Your task to perform on an android device: turn off improve location accuracy Image 0: 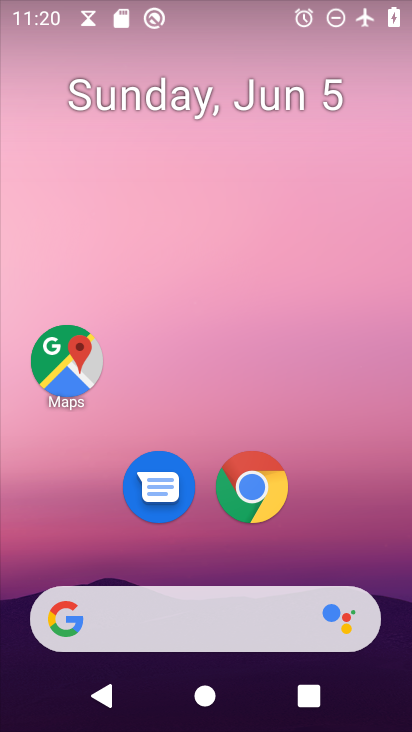
Step 0: drag from (232, 524) to (230, 321)
Your task to perform on an android device: turn off improve location accuracy Image 1: 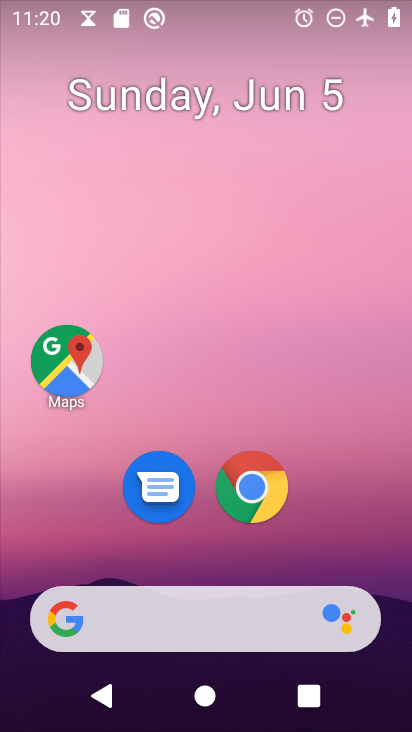
Step 1: click (238, 486)
Your task to perform on an android device: turn off improve location accuracy Image 2: 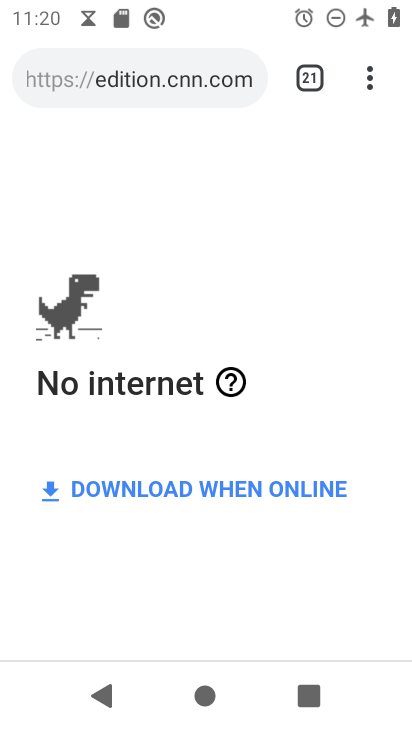
Step 2: click (369, 76)
Your task to perform on an android device: turn off improve location accuracy Image 3: 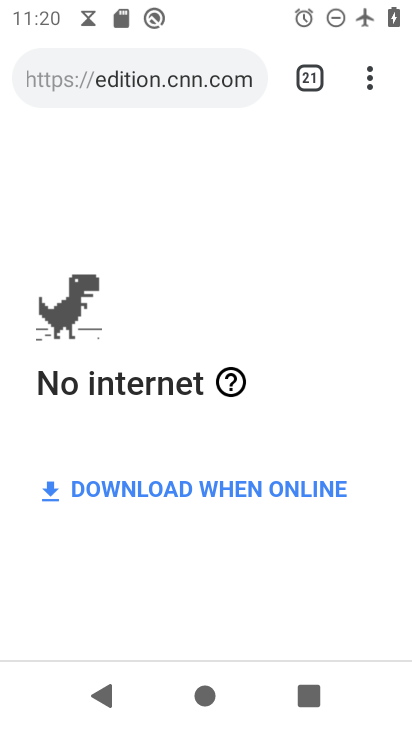
Step 3: click (365, 70)
Your task to perform on an android device: turn off improve location accuracy Image 4: 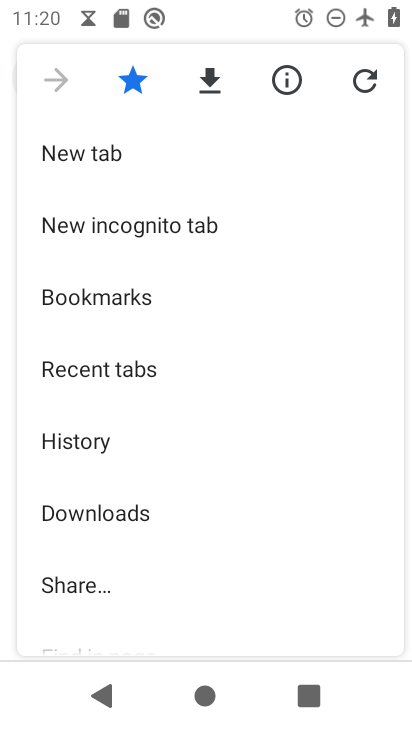
Step 4: click (63, 147)
Your task to perform on an android device: turn off improve location accuracy Image 5: 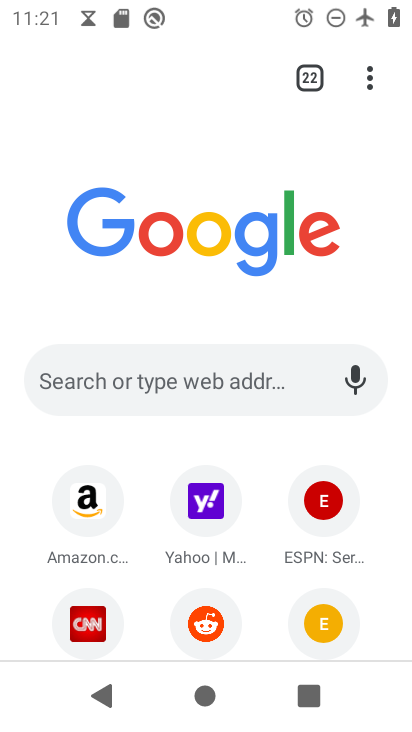
Step 5: press home button
Your task to perform on an android device: turn off improve location accuracy Image 6: 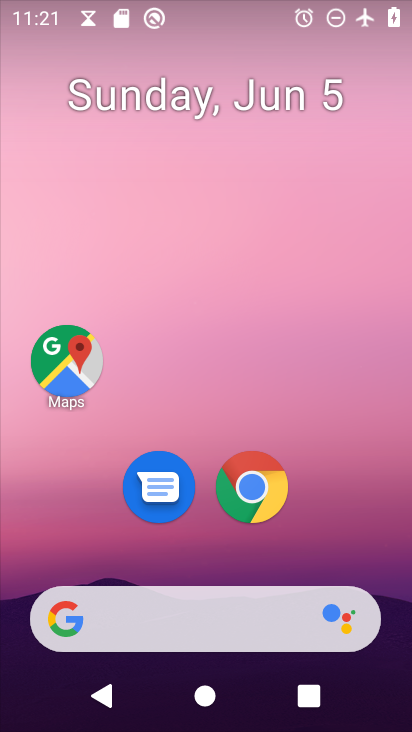
Step 6: drag from (214, 518) to (200, 262)
Your task to perform on an android device: turn off improve location accuracy Image 7: 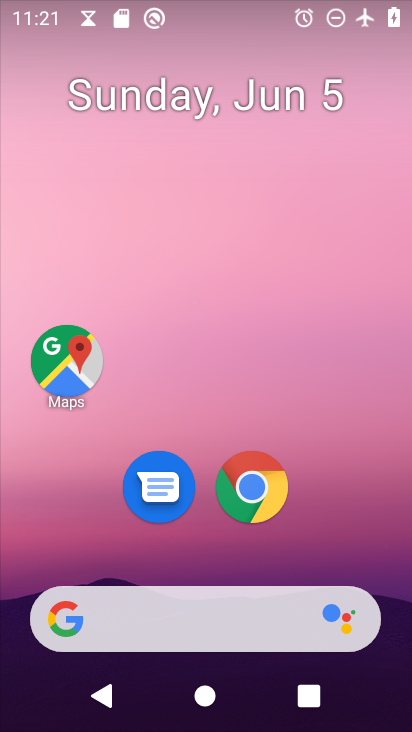
Step 7: drag from (174, 549) to (174, 273)
Your task to perform on an android device: turn off improve location accuracy Image 8: 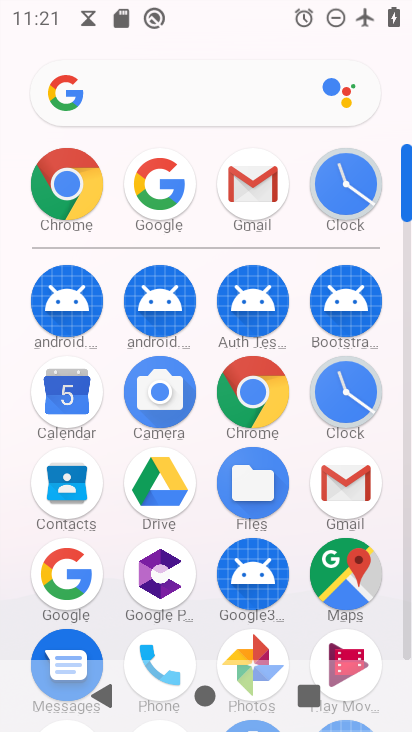
Step 8: drag from (207, 539) to (200, 235)
Your task to perform on an android device: turn off improve location accuracy Image 9: 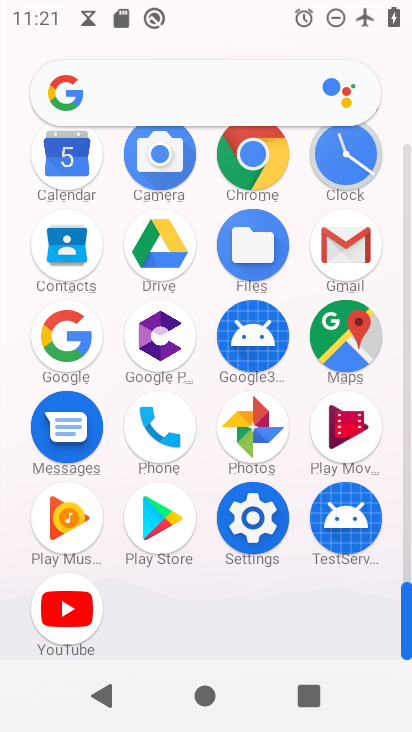
Step 9: click (251, 521)
Your task to perform on an android device: turn off improve location accuracy Image 10: 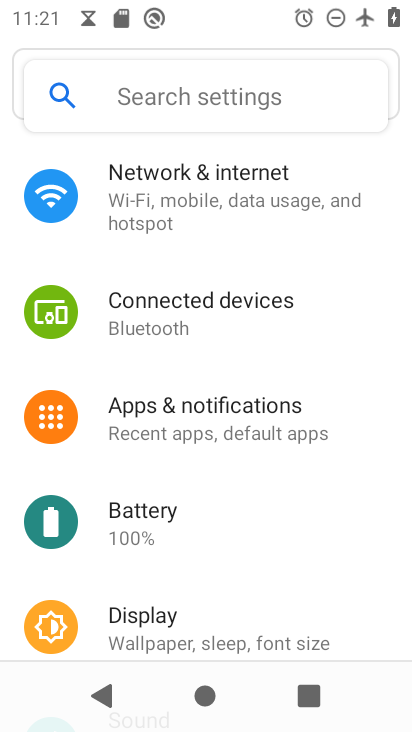
Step 10: drag from (239, 569) to (308, 212)
Your task to perform on an android device: turn off improve location accuracy Image 11: 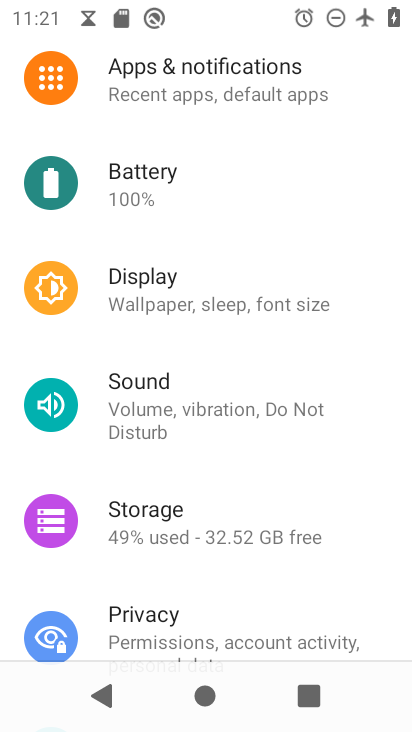
Step 11: drag from (245, 583) to (292, 225)
Your task to perform on an android device: turn off improve location accuracy Image 12: 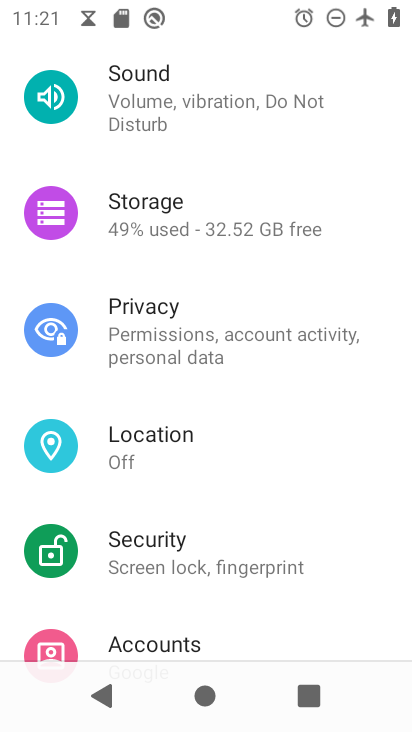
Step 12: click (218, 440)
Your task to perform on an android device: turn off improve location accuracy Image 13: 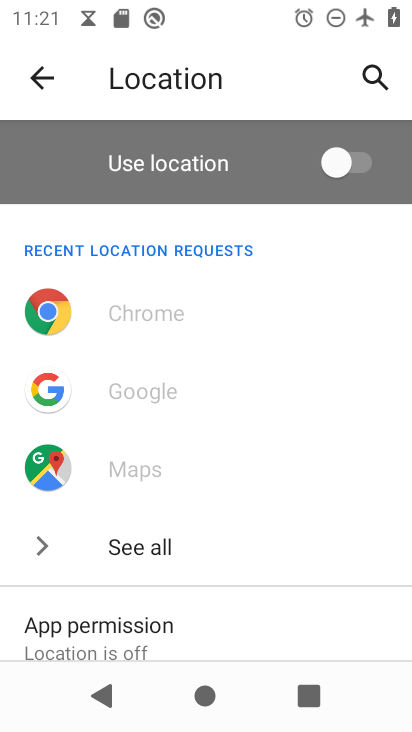
Step 13: drag from (221, 610) to (249, 251)
Your task to perform on an android device: turn off improve location accuracy Image 14: 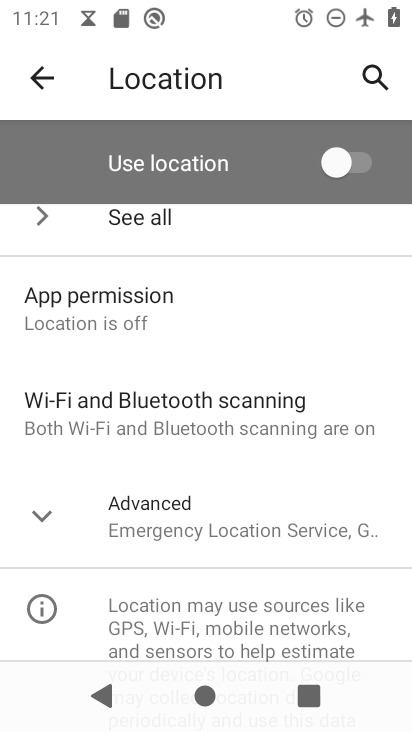
Step 14: click (224, 519)
Your task to perform on an android device: turn off improve location accuracy Image 15: 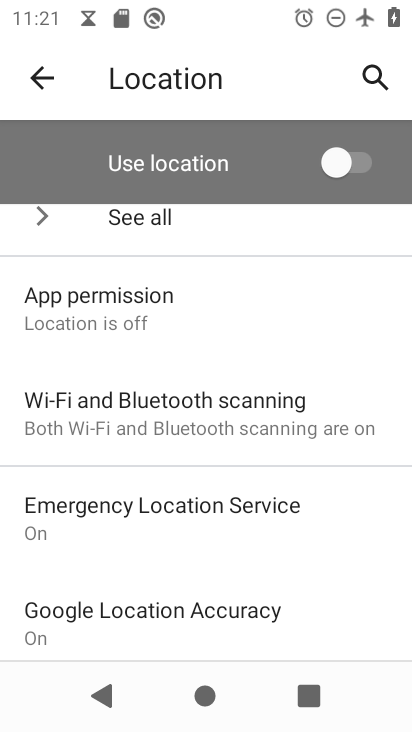
Step 15: drag from (206, 549) to (206, 398)
Your task to perform on an android device: turn off improve location accuracy Image 16: 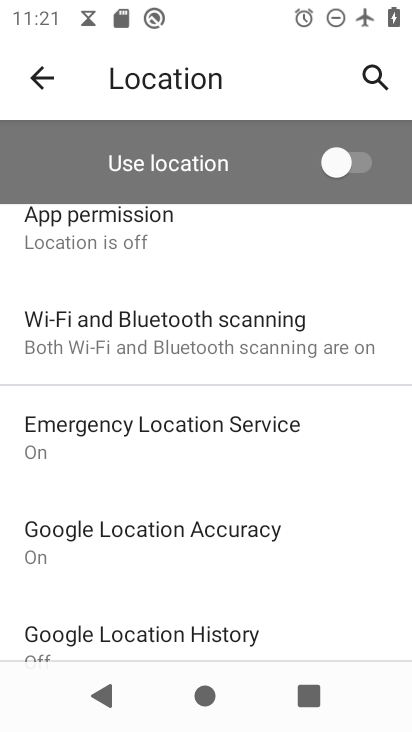
Step 16: drag from (253, 573) to (241, 418)
Your task to perform on an android device: turn off improve location accuracy Image 17: 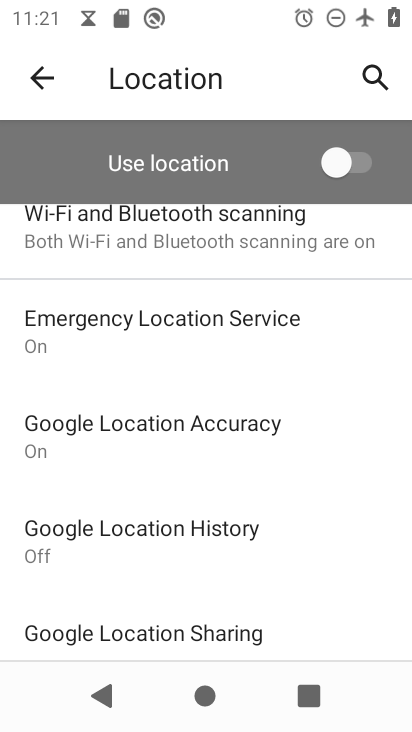
Step 17: click (126, 430)
Your task to perform on an android device: turn off improve location accuracy Image 18: 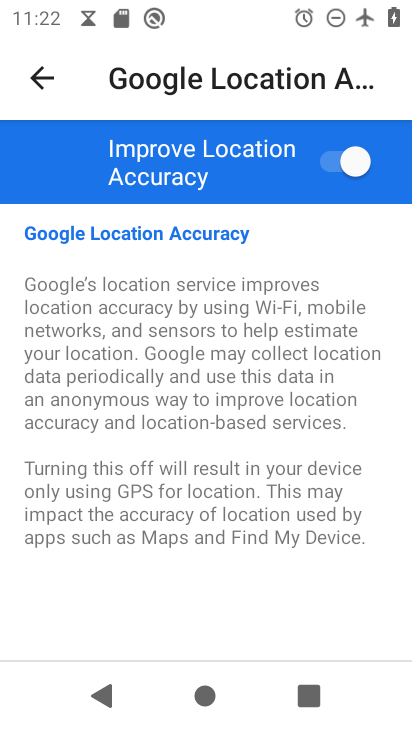
Step 18: click (335, 160)
Your task to perform on an android device: turn off improve location accuracy Image 19: 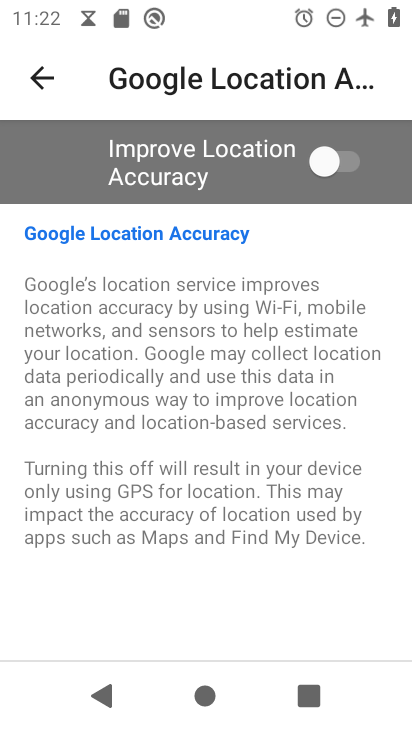
Step 19: task complete